Your task to perform on an android device: open app "DuckDuckGo Privacy Browser" Image 0: 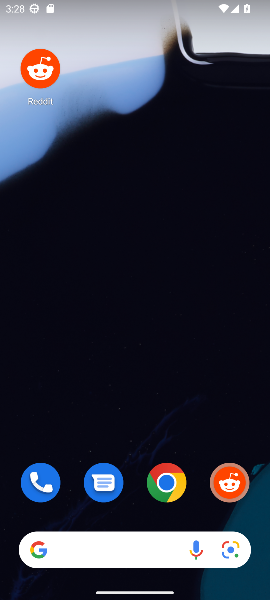
Step 0: press home button
Your task to perform on an android device: open app "DuckDuckGo Privacy Browser" Image 1: 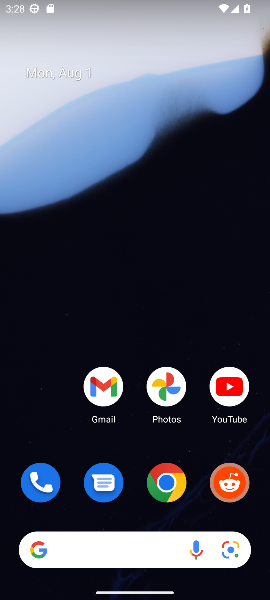
Step 1: drag from (150, 509) to (174, 78)
Your task to perform on an android device: open app "DuckDuckGo Privacy Browser" Image 2: 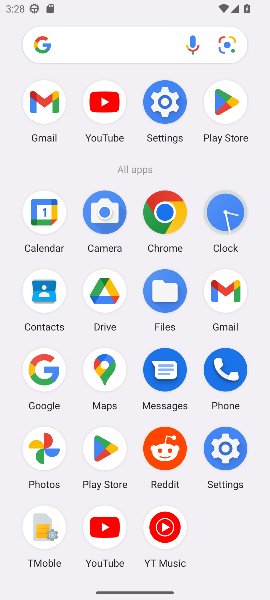
Step 2: drag from (217, 106) to (115, 229)
Your task to perform on an android device: open app "DuckDuckGo Privacy Browser" Image 3: 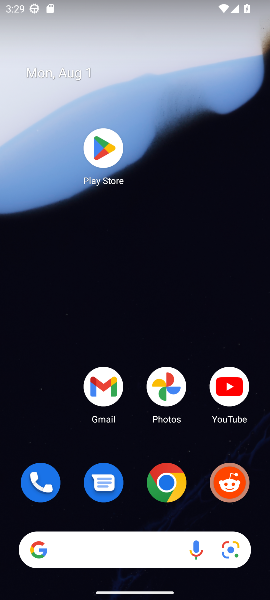
Step 3: click (106, 146)
Your task to perform on an android device: open app "DuckDuckGo Privacy Browser" Image 4: 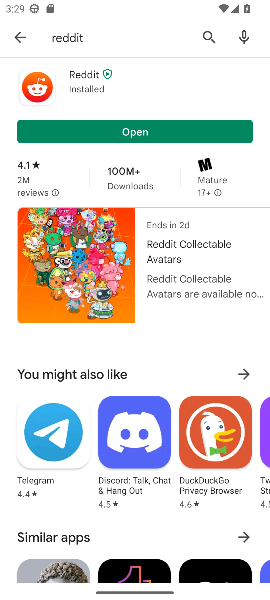
Step 4: click (207, 32)
Your task to perform on an android device: open app "DuckDuckGo Privacy Browser" Image 5: 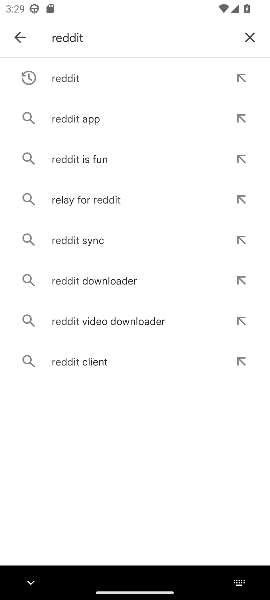
Step 5: click (252, 32)
Your task to perform on an android device: open app "DuckDuckGo Privacy Browser" Image 6: 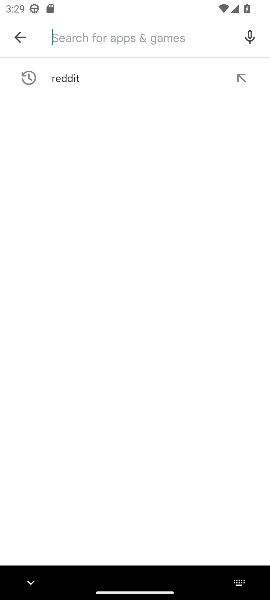
Step 6: type "DuckDuckGo Privacy Browser"
Your task to perform on an android device: open app "DuckDuckGo Privacy Browser" Image 7: 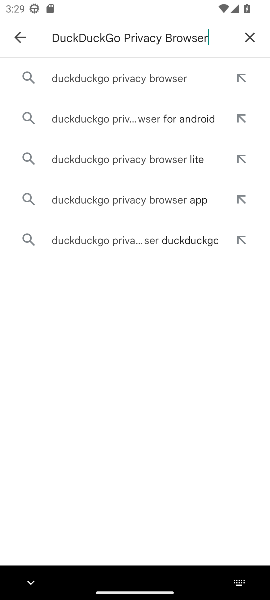
Step 7: click (173, 76)
Your task to perform on an android device: open app "DuckDuckGo Privacy Browser" Image 8: 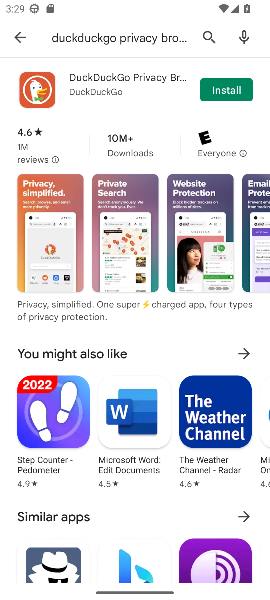
Step 8: task complete